Your task to perform on an android device: toggle airplane mode Image 0: 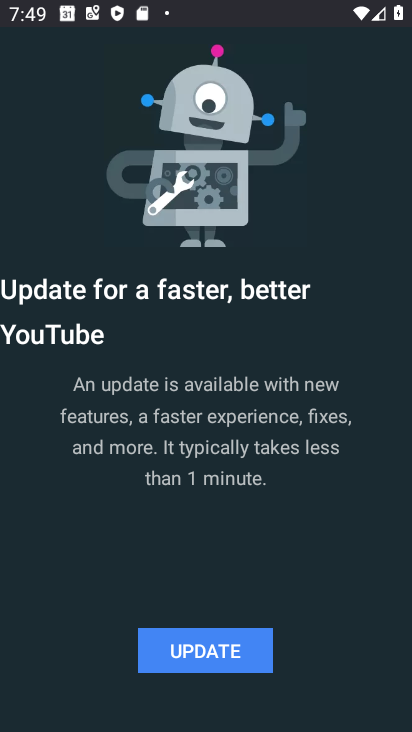
Step 0: press home button
Your task to perform on an android device: toggle airplane mode Image 1: 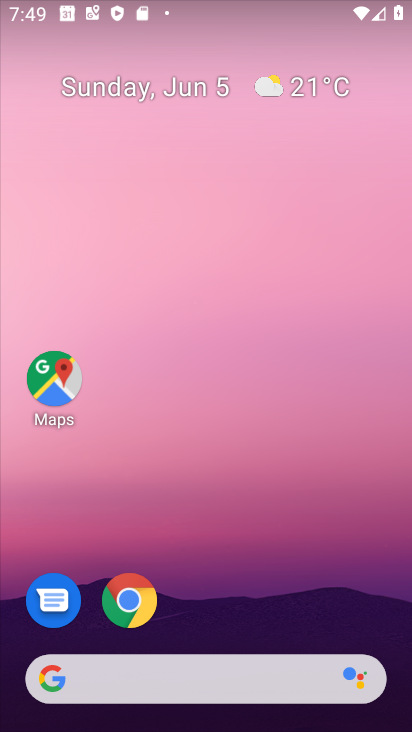
Step 1: drag from (218, 583) to (202, 14)
Your task to perform on an android device: toggle airplane mode Image 2: 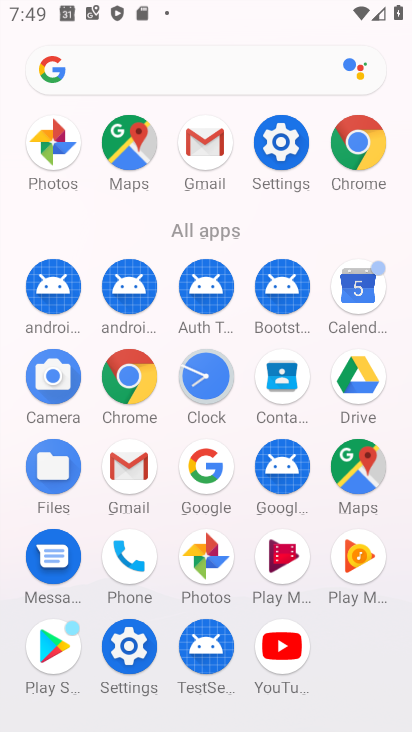
Step 2: click (281, 145)
Your task to perform on an android device: toggle airplane mode Image 3: 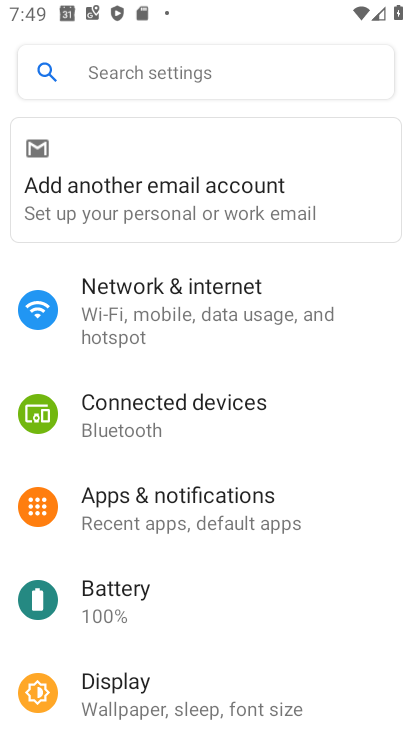
Step 3: click (225, 300)
Your task to perform on an android device: toggle airplane mode Image 4: 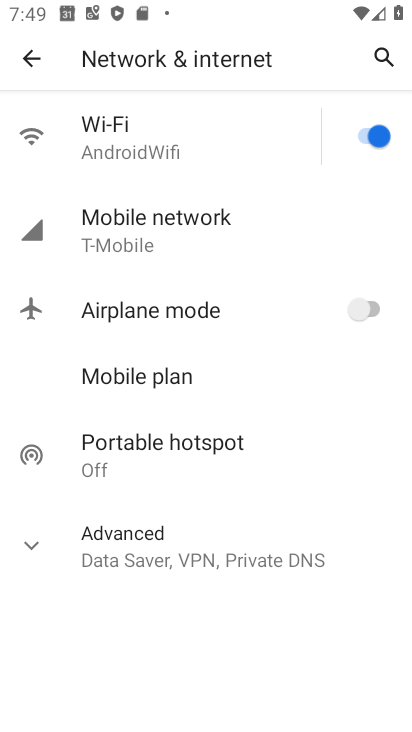
Step 4: click (366, 304)
Your task to perform on an android device: toggle airplane mode Image 5: 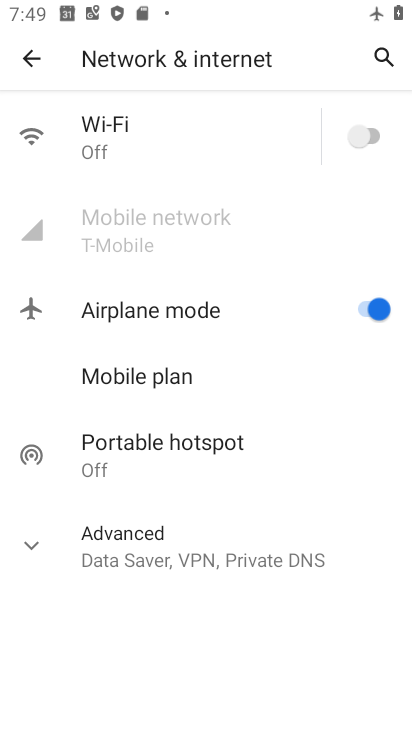
Step 5: task complete